Your task to perform on an android device: Go to settings Image 0: 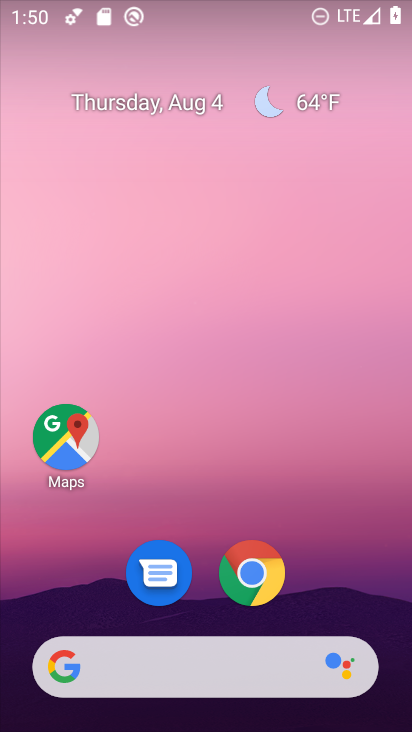
Step 0: drag from (337, 546) to (318, 158)
Your task to perform on an android device: Go to settings Image 1: 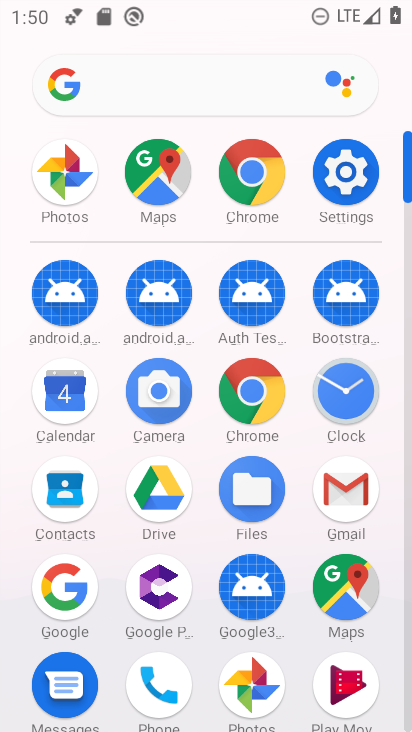
Step 1: click (353, 184)
Your task to perform on an android device: Go to settings Image 2: 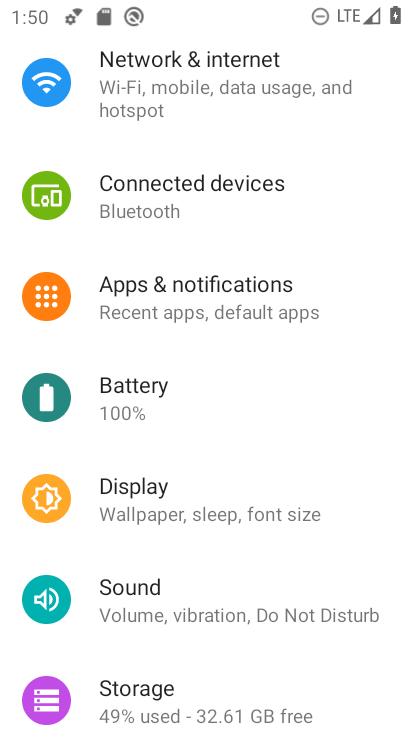
Step 2: task complete